Your task to perform on an android device: turn on location history Image 0: 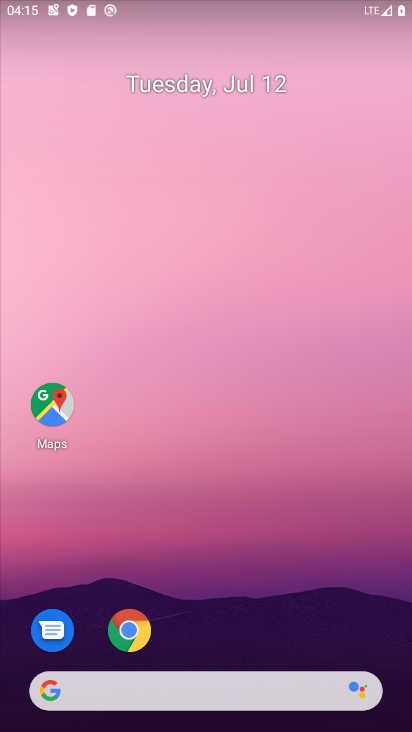
Step 0: drag from (226, 688) to (210, 65)
Your task to perform on an android device: turn on location history Image 1: 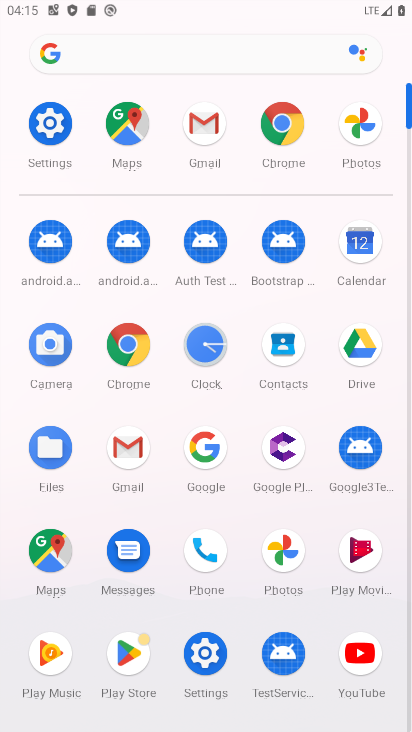
Step 1: click (39, 117)
Your task to perform on an android device: turn on location history Image 2: 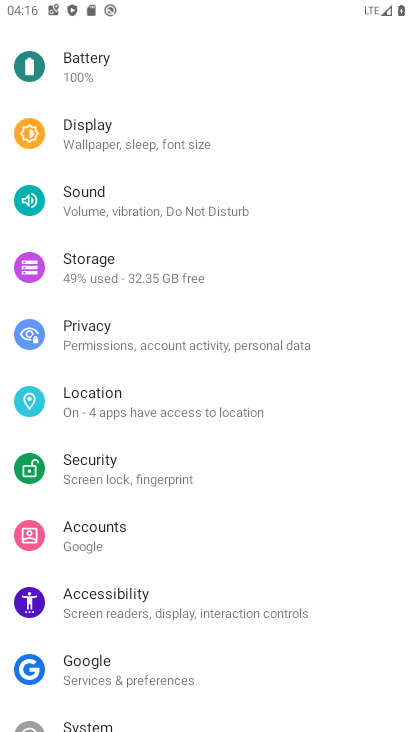
Step 2: click (119, 402)
Your task to perform on an android device: turn on location history Image 3: 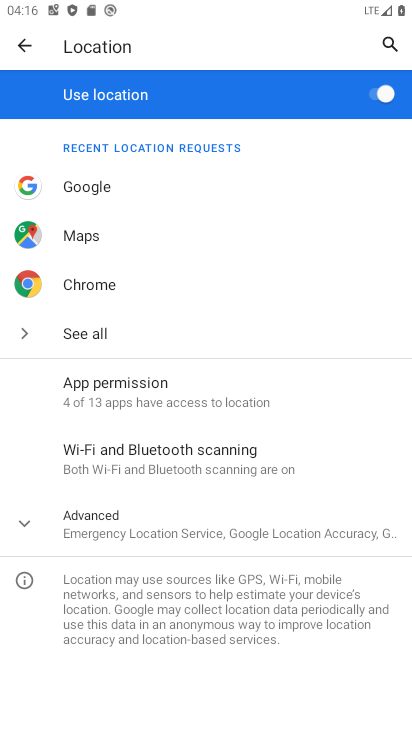
Step 3: click (216, 527)
Your task to perform on an android device: turn on location history Image 4: 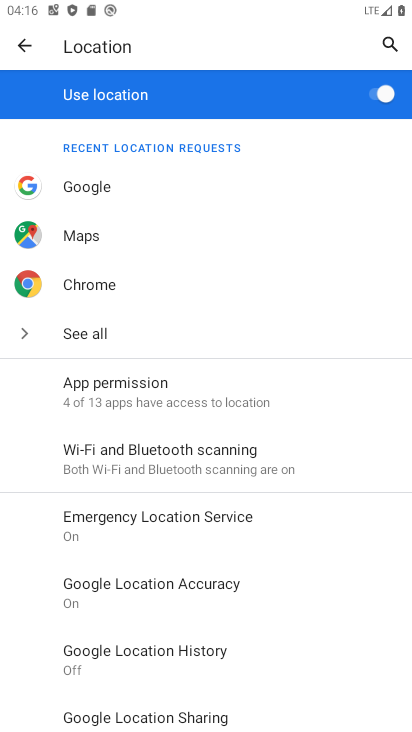
Step 4: click (182, 656)
Your task to perform on an android device: turn on location history Image 5: 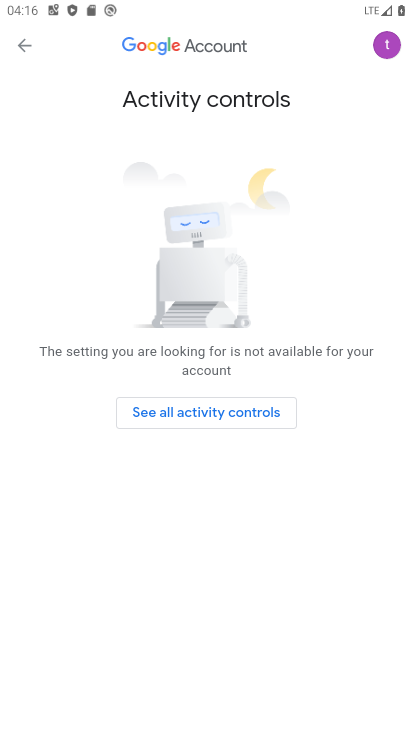
Step 5: click (235, 409)
Your task to perform on an android device: turn on location history Image 6: 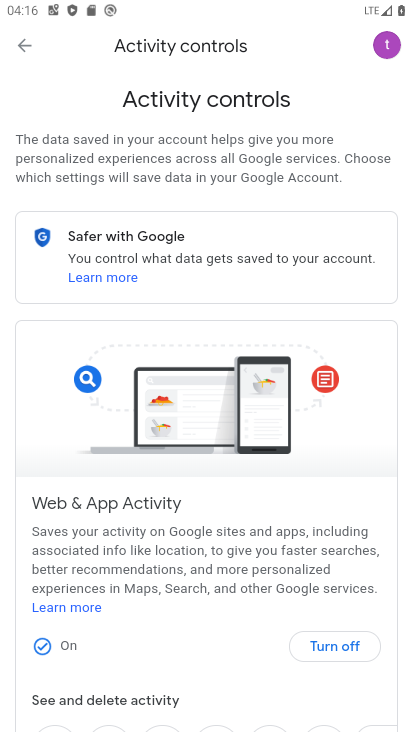
Step 6: task complete